Your task to perform on an android device: Go to accessibility settings Image 0: 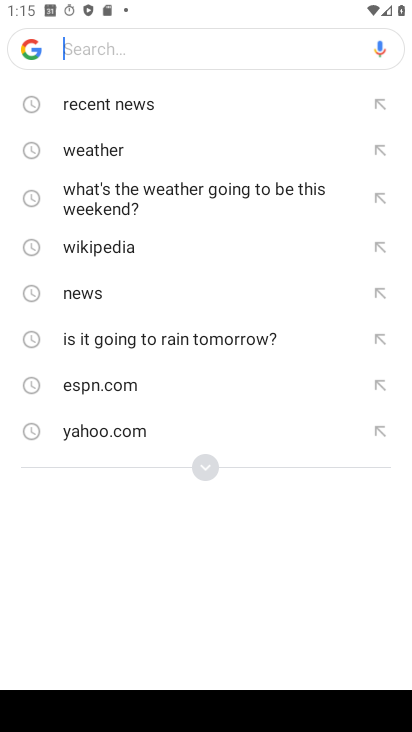
Step 0: press home button
Your task to perform on an android device: Go to accessibility settings Image 1: 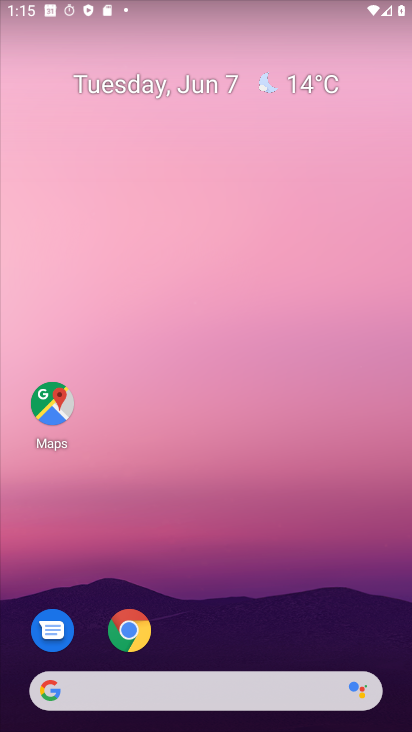
Step 1: drag from (249, 636) to (296, 129)
Your task to perform on an android device: Go to accessibility settings Image 2: 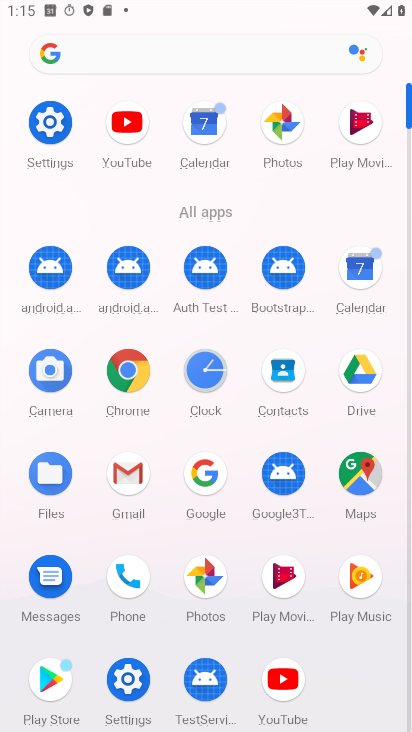
Step 2: click (58, 149)
Your task to perform on an android device: Go to accessibility settings Image 3: 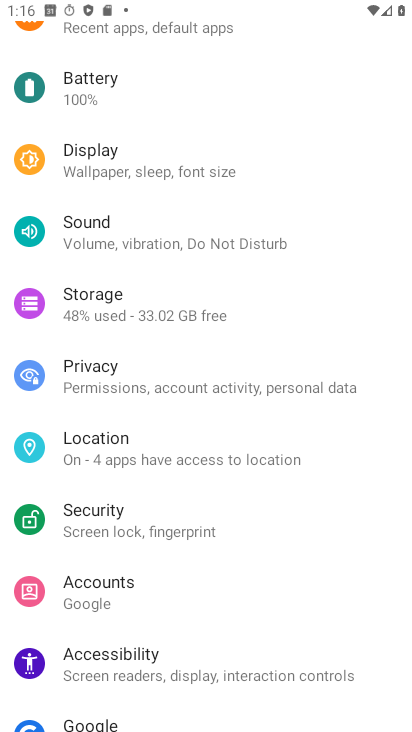
Step 3: drag from (115, 611) to (128, 474)
Your task to perform on an android device: Go to accessibility settings Image 4: 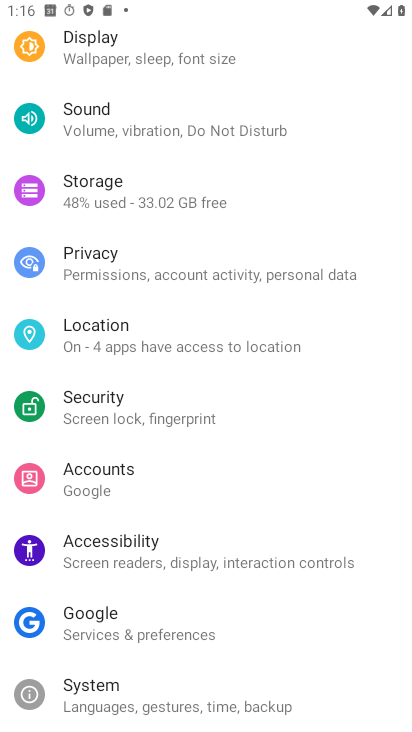
Step 4: click (133, 578)
Your task to perform on an android device: Go to accessibility settings Image 5: 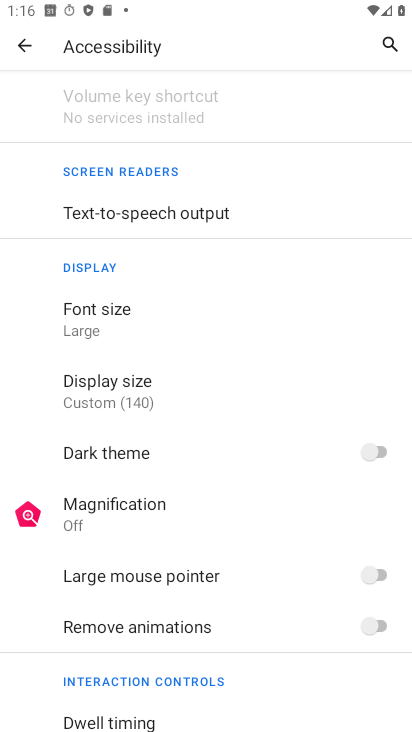
Step 5: task complete